Your task to perform on an android device: Is it going to rain this weekend? Image 0: 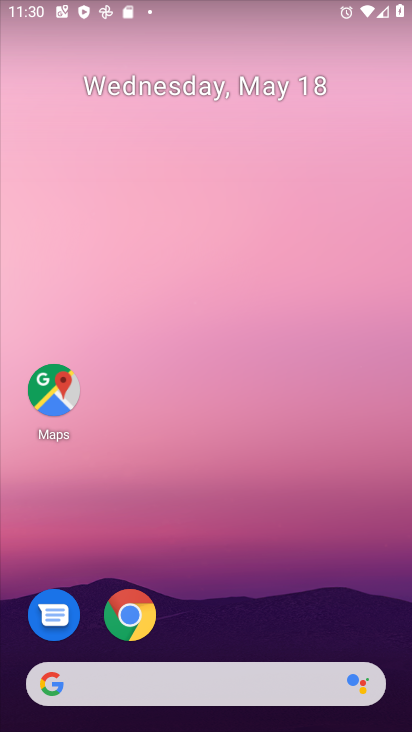
Step 0: click (250, 329)
Your task to perform on an android device: Is it going to rain this weekend? Image 1: 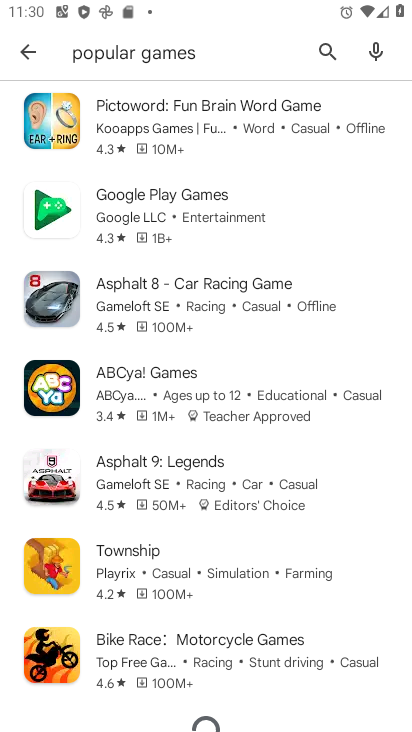
Step 1: drag from (208, 661) to (214, 355)
Your task to perform on an android device: Is it going to rain this weekend? Image 2: 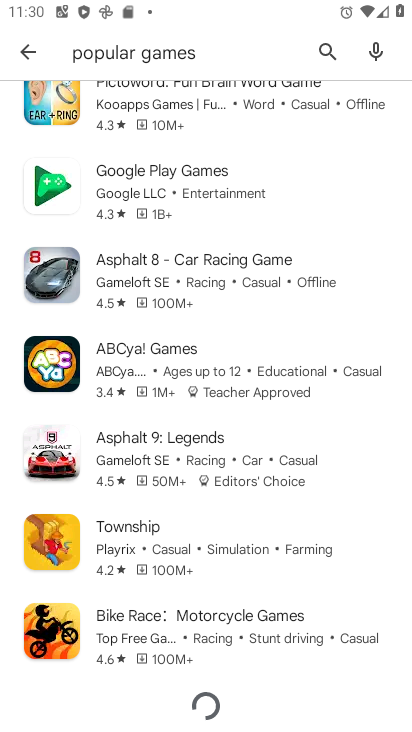
Step 2: press home button
Your task to perform on an android device: Is it going to rain this weekend? Image 3: 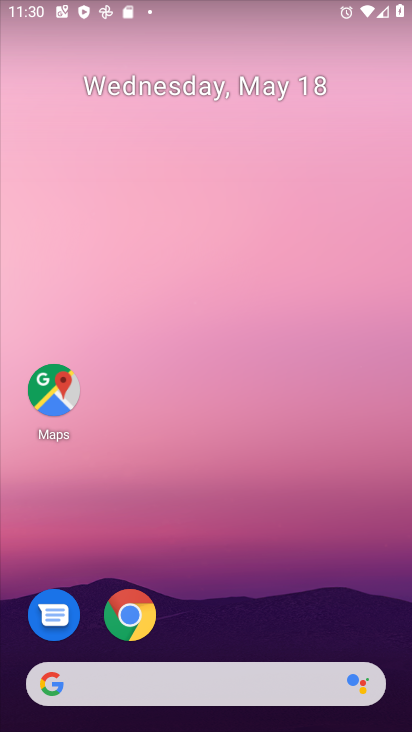
Step 3: drag from (168, 666) to (160, 283)
Your task to perform on an android device: Is it going to rain this weekend? Image 4: 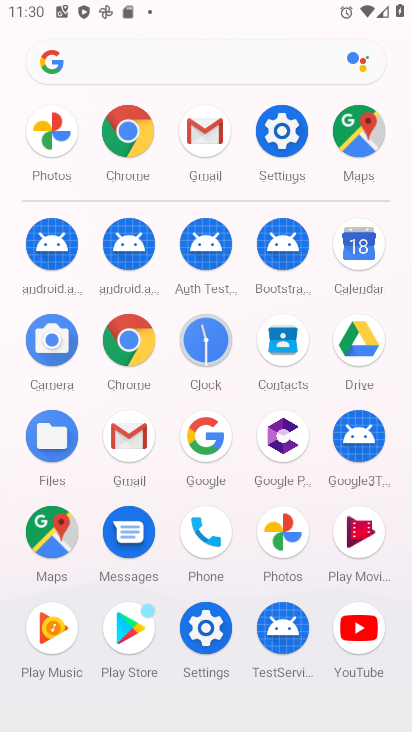
Step 4: click (212, 430)
Your task to perform on an android device: Is it going to rain this weekend? Image 5: 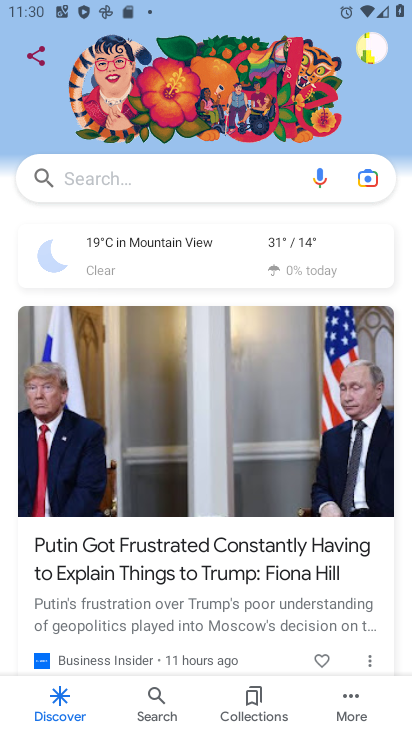
Step 5: click (97, 177)
Your task to perform on an android device: Is it going to rain this weekend? Image 6: 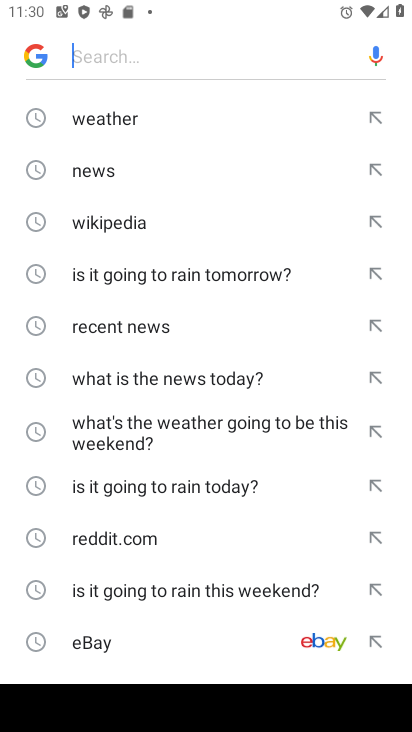
Step 6: click (110, 590)
Your task to perform on an android device: Is it going to rain this weekend? Image 7: 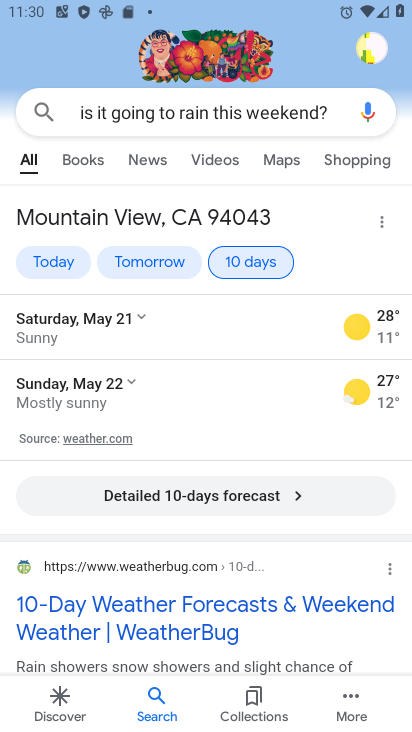
Step 7: click (173, 489)
Your task to perform on an android device: Is it going to rain this weekend? Image 8: 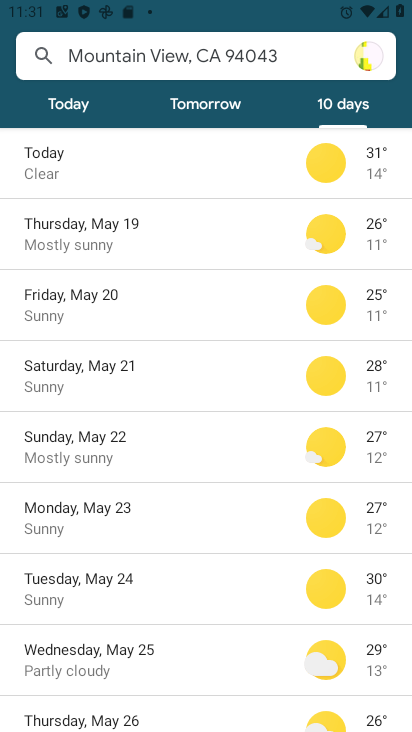
Step 8: task complete